Your task to perform on an android device: Go to display settings Image 0: 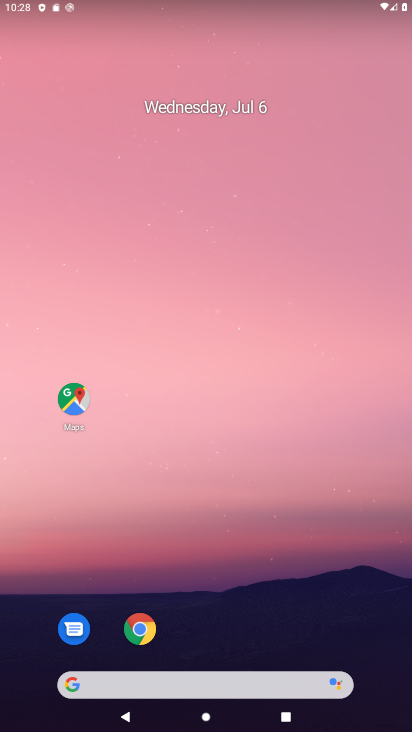
Step 0: drag from (31, 650) to (327, 161)
Your task to perform on an android device: Go to display settings Image 1: 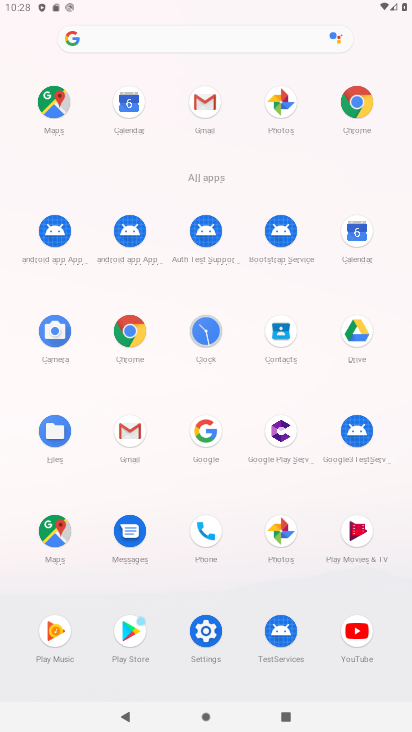
Step 1: click (205, 639)
Your task to perform on an android device: Go to display settings Image 2: 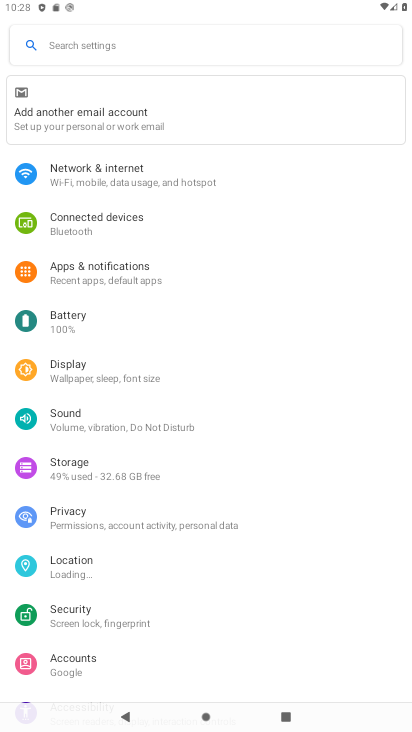
Step 2: click (173, 367)
Your task to perform on an android device: Go to display settings Image 3: 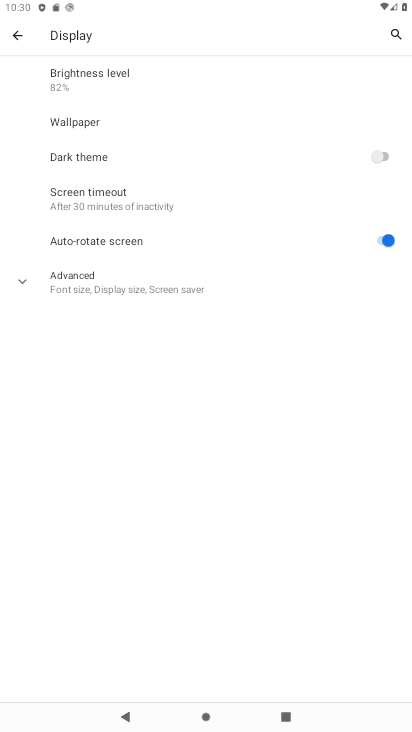
Step 3: task complete